Your task to perform on an android device: Show me the alarms in the clock app Image 0: 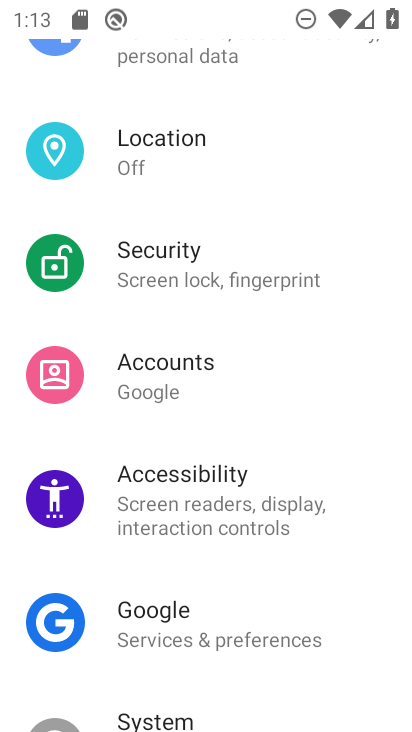
Step 0: press home button
Your task to perform on an android device: Show me the alarms in the clock app Image 1: 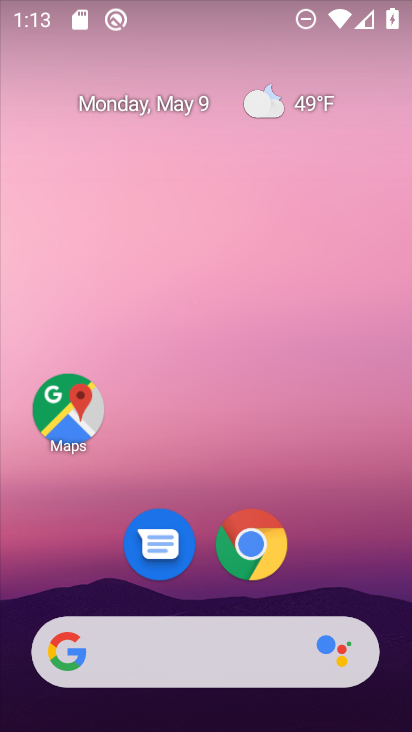
Step 1: drag from (355, 492) to (373, 84)
Your task to perform on an android device: Show me the alarms in the clock app Image 2: 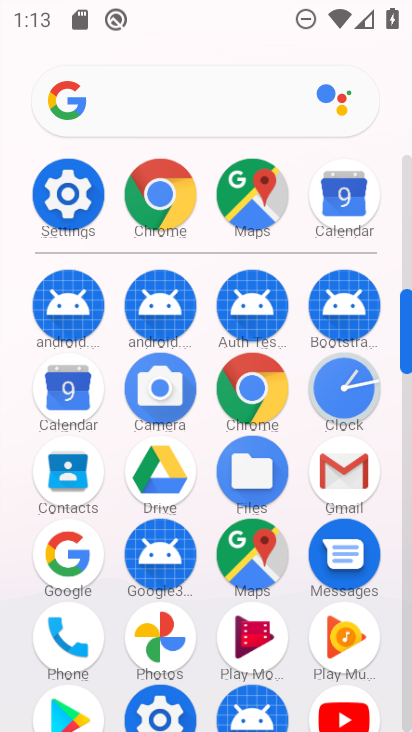
Step 2: click (337, 391)
Your task to perform on an android device: Show me the alarms in the clock app Image 3: 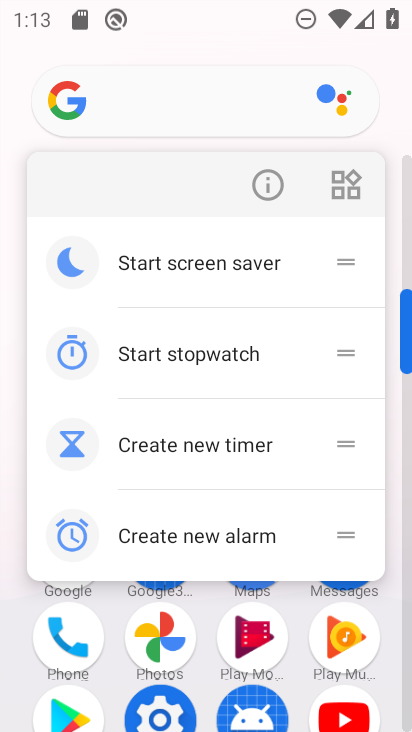
Step 3: press back button
Your task to perform on an android device: Show me the alarms in the clock app Image 4: 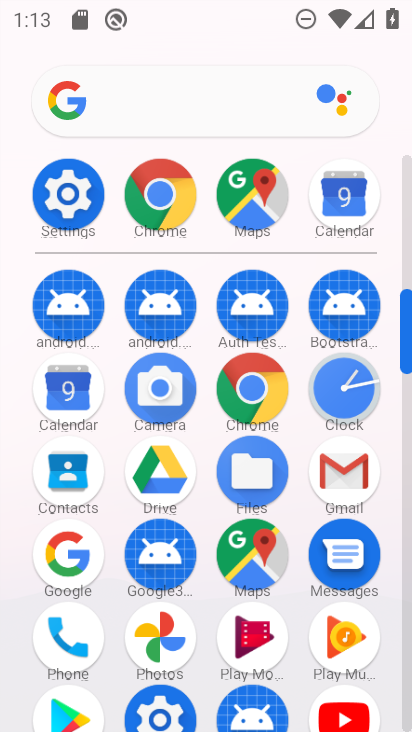
Step 4: click (357, 386)
Your task to perform on an android device: Show me the alarms in the clock app Image 5: 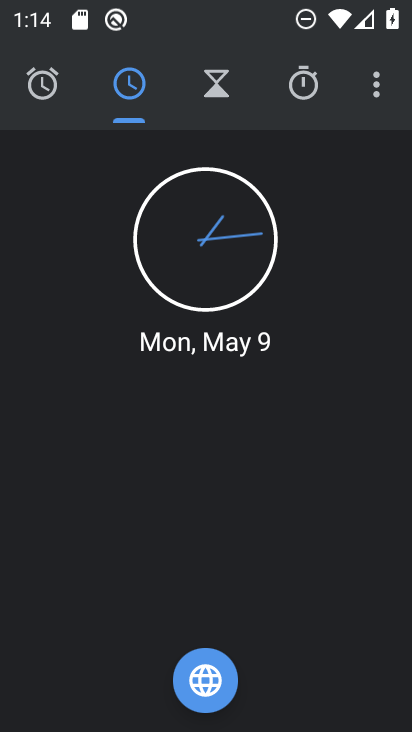
Step 5: click (25, 83)
Your task to perform on an android device: Show me the alarms in the clock app Image 6: 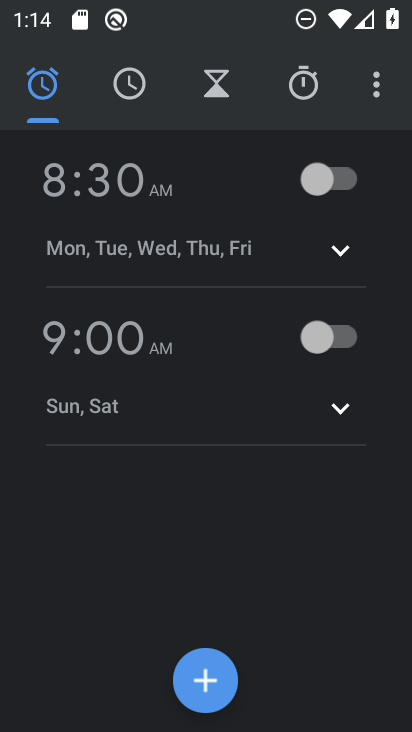
Step 6: click (155, 213)
Your task to perform on an android device: Show me the alarms in the clock app Image 7: 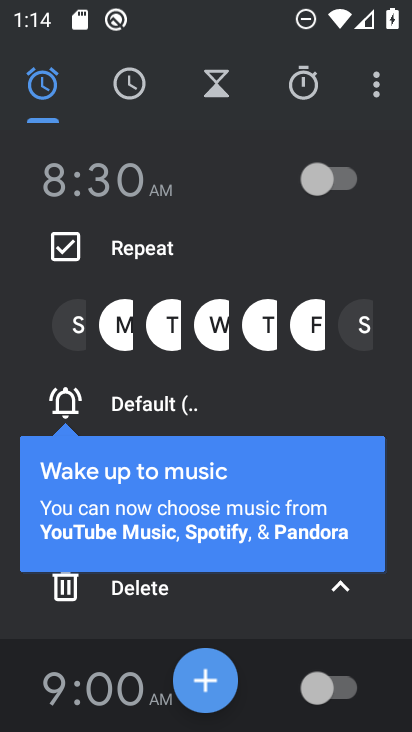
Step 7: task complete